Your task to perform on an android device: see creations saved in the google photos Image 0: 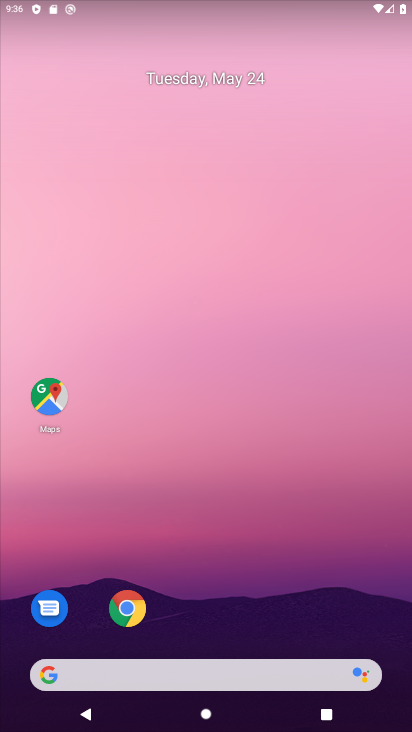
Step 0: drag from (200, 620) to (179, 84)
Your task to perform on an android device: see creations saved in the google photos Image 1: 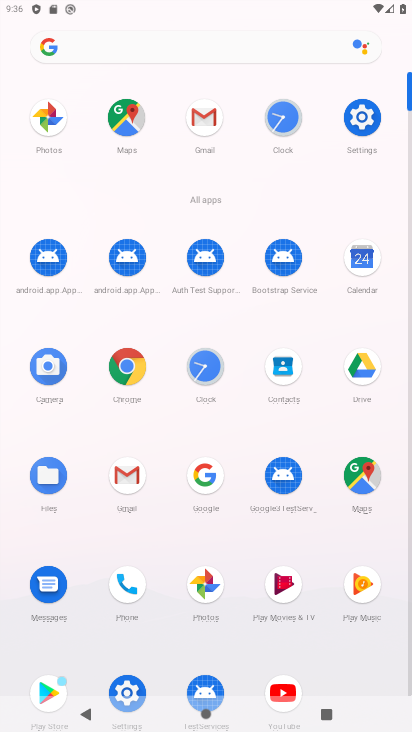
Step 1: click (212, 580)
Your task to perform on an android device: see creations saved in the google photos Image 2: 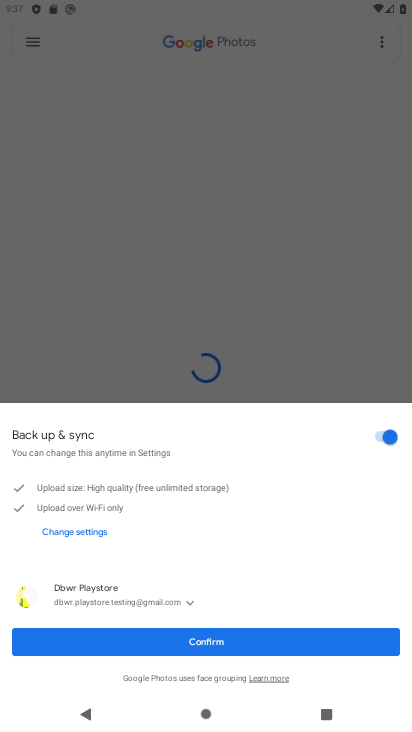
Step 2: click (264, 642)
Your task to perform on an android device: see creations saved in the google photos Image 3: 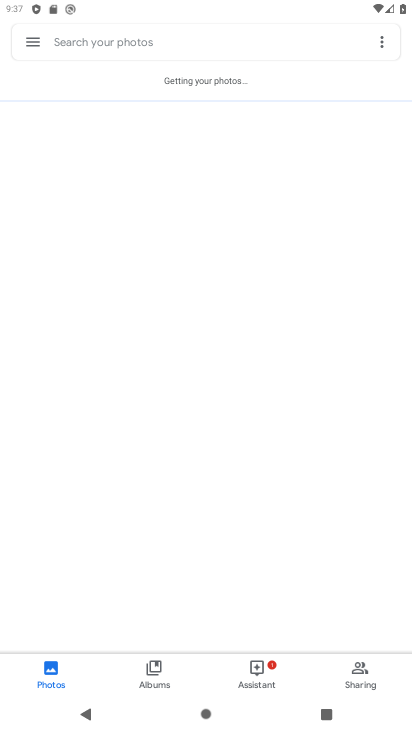
Step 3: click (182, 46)
Your task to perform on an android device: see creations saved in the google photos Image 4: 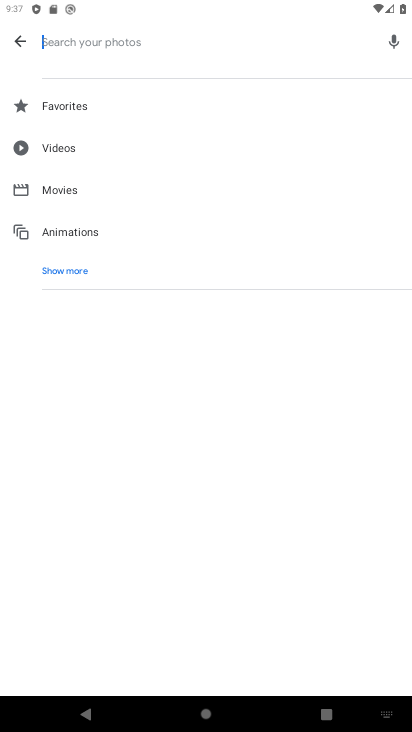
Step 4: click (75, 276)
Your task to perform on an android device: see creations saved in the google photos Image 5: 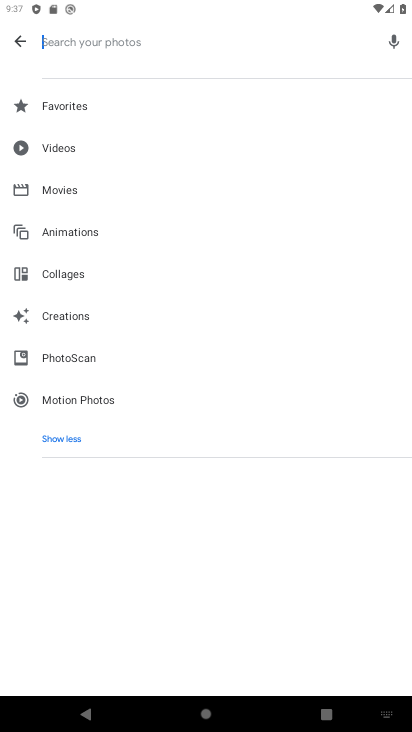
Step 5: click (70, 313)
Your task to perform on an android device: see creations saved in the google photos Image 6: 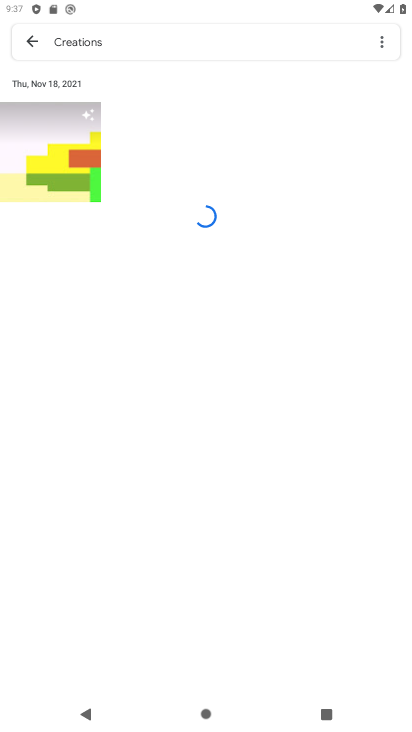
Step 6: task complete